Your task to perform on an android device: Go to eBay Image 0: 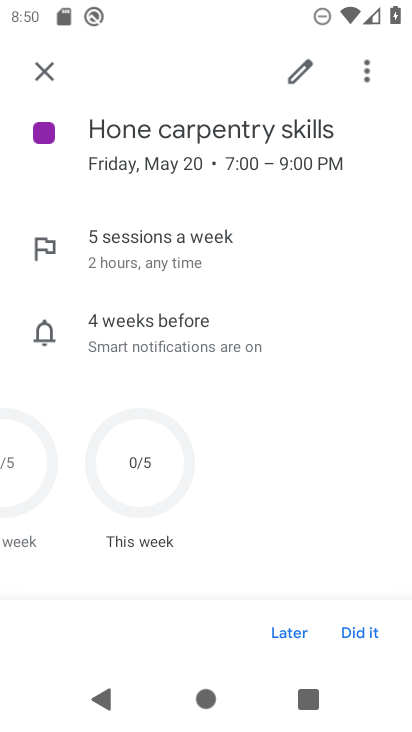
Step 0: press home button
Your task to perform on an android device: Go to eBay Image 1: 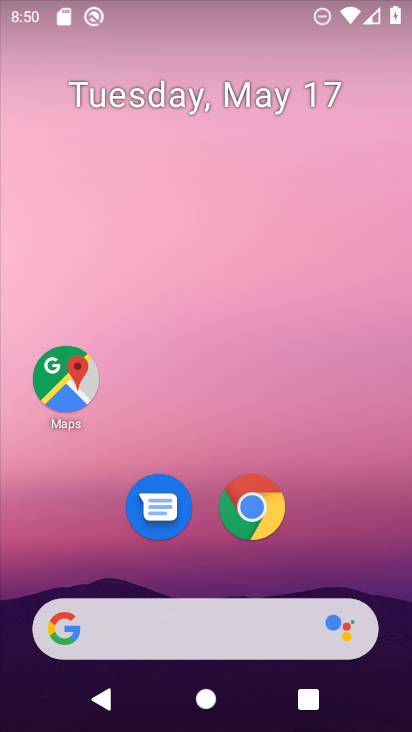
Step 1: click (255, 500)
Your task to perform on an android device: Go to eBay Image 2: 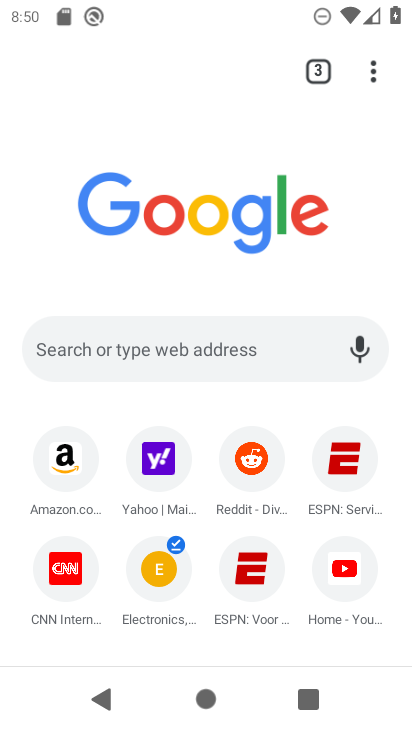
Step 2: click (127, 348)
Your task to perform on an android device: Go to eBay Image 3: 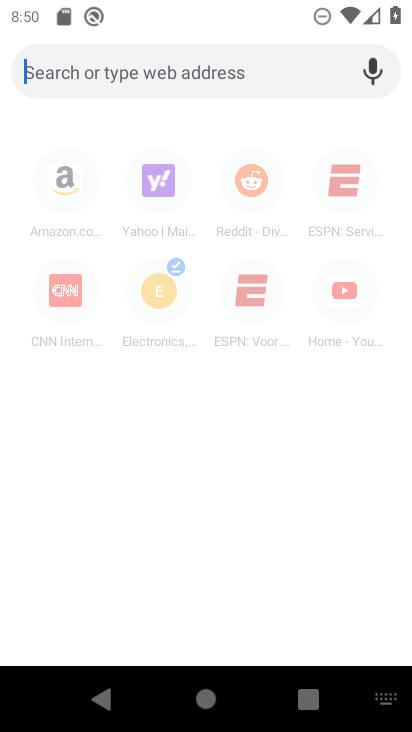
Step 3: type "ebay"
Your task to perform on an android device: Go to eBay Image 4: 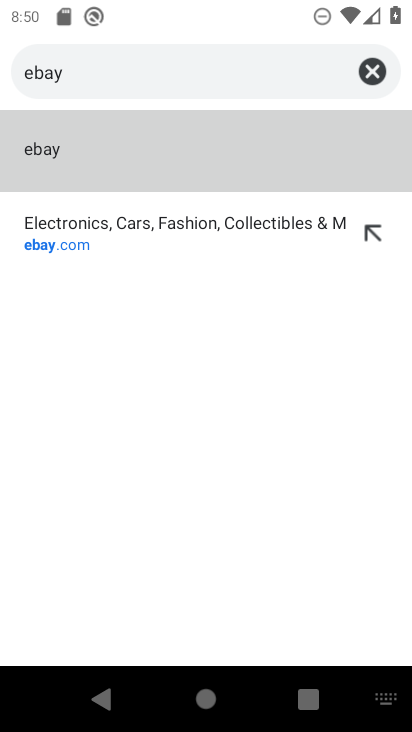
Step 4: click (34, 155)
Your task to perform on an android device: Go to eBay Image 5: 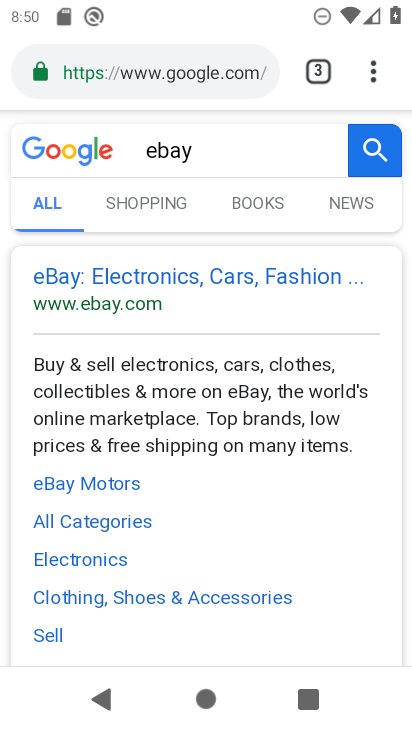
Step 5: click (65, 304)
Your task to perform on an android device: Go to eBay Image 6: 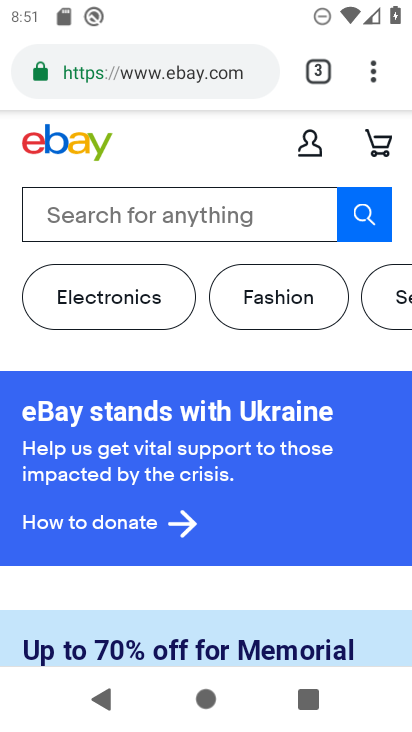
Step 6: task complete